Your task to perform on an android device: Search for vegetarian restaurants on Maps Image 0: 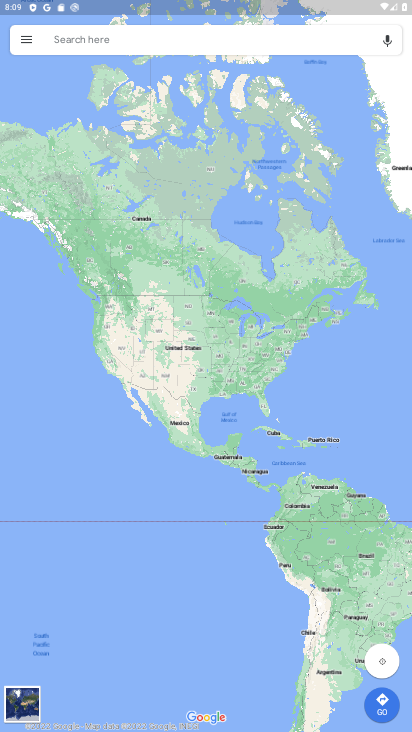
Step 0: click (167, 40)
Your task to perform on an android device: Search for vegetarian restaurants on Maps Image 1: 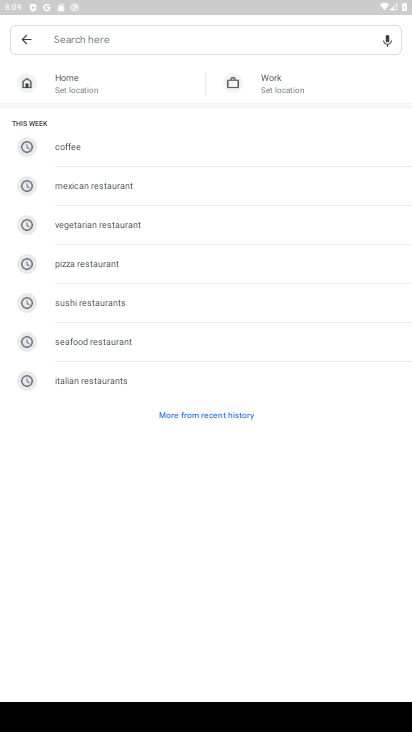
Step 1: type "vegetarian restaurants on Maps"
Your task to perform on an android device: Search for vegetarian restaurants on Maps Image 2: 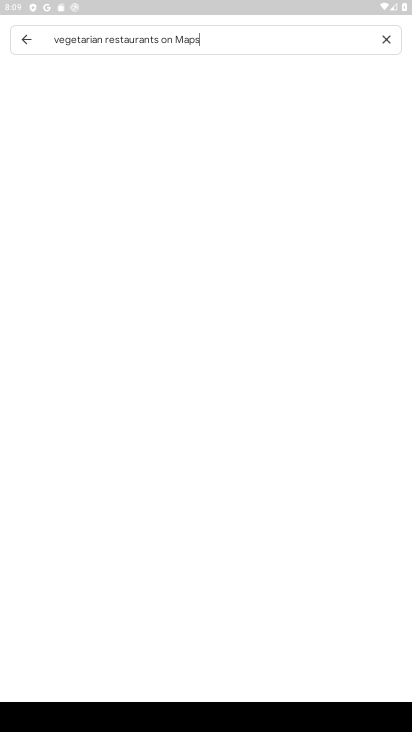
Step 2: press enter
Your task to perform on an android device: Search for vegetarian restaurants on Maps Image 3: 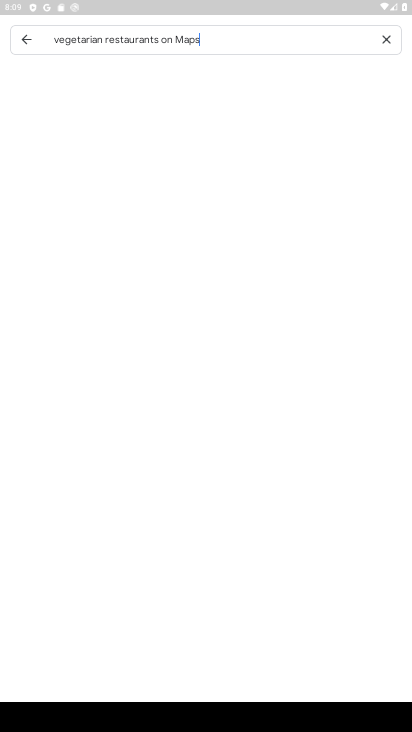
Step 3: type ""
Your task to perform on an android device: Search for vegetarian restaurants on Maps Image 4: 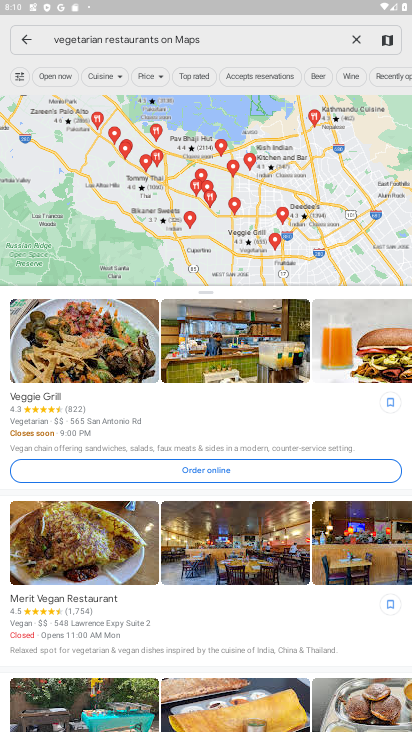
Step 4: task complete